Your task to perform on an android device: Open calendar and show me the second week of next month Image 0: 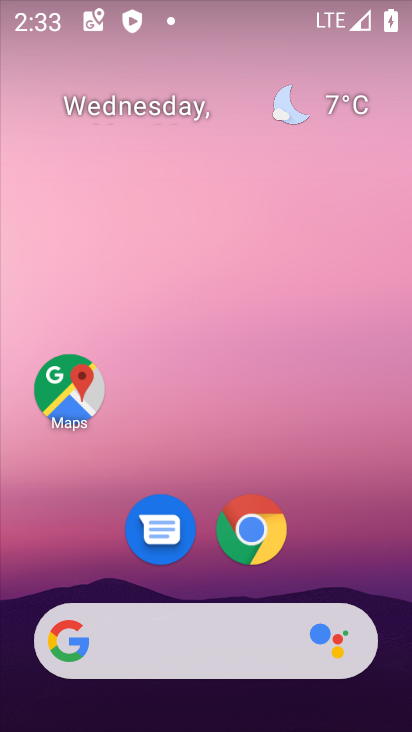
Step 0: drag from (369, 525) to (390, 183)
Your task to perform on an android device: Open calendar and show me the second week of next month Image 1: 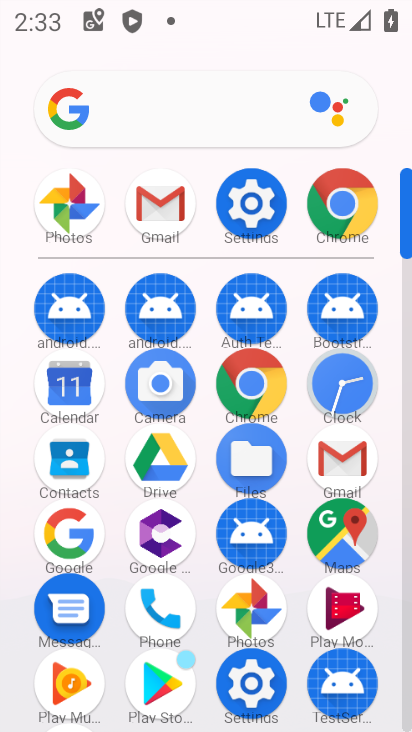
Step 1: click (73, 392)
Your task to perform on an android device: Open calendar and show me the second week of next month Image 2: 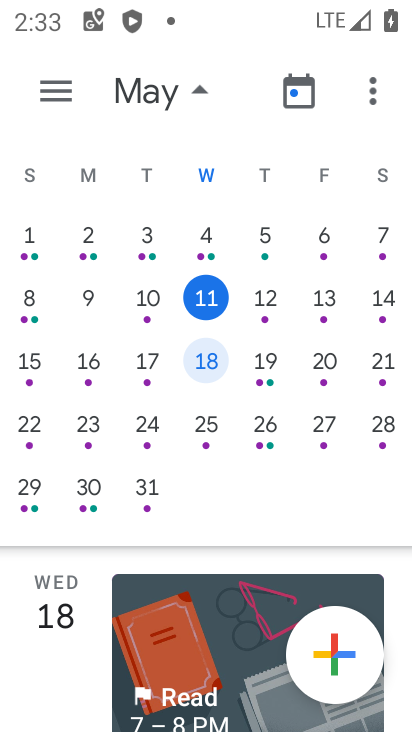
Step 2: drag from (359, 414) to (1, 383)
Your task to perform on an android device: Open calendar and show me the second week of next month Image 3: 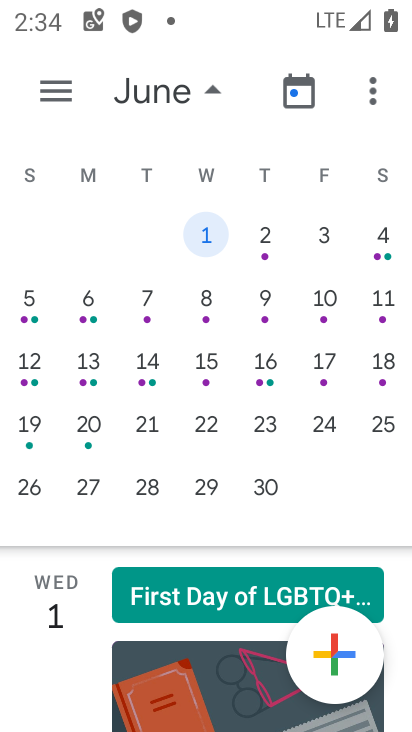
Step 3: click (154, 366)
Your task to perform on an android device: Open calendar and show me the second week of next month Image 4: 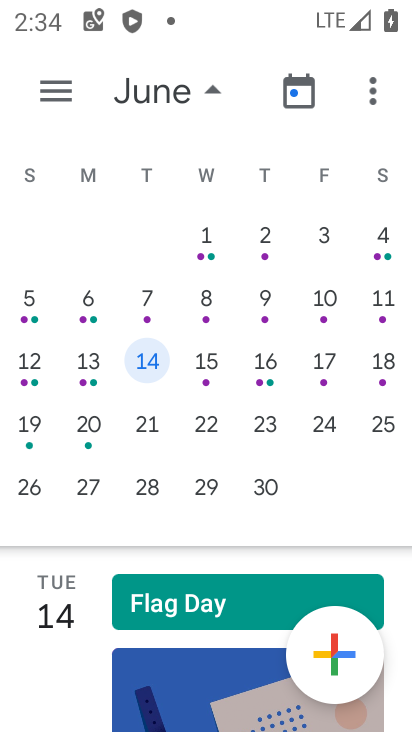
Step 4: task complete